Your task to perform on an android device: move a message to another label in the gmail app Image 0: 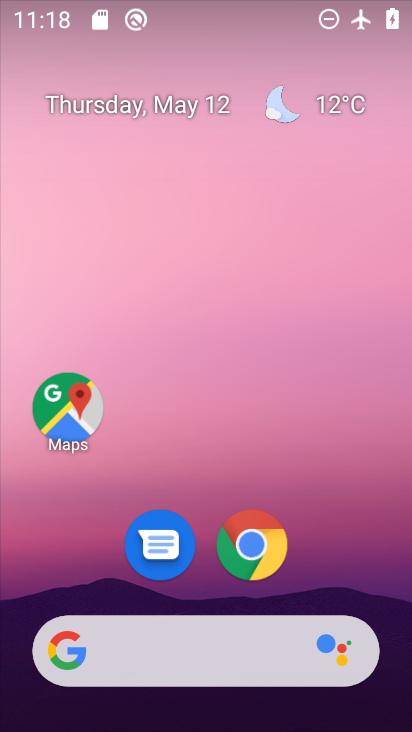
Step 0: press home button
Your task to perform on an android device: move a message to another label in the gmail app Image 1: 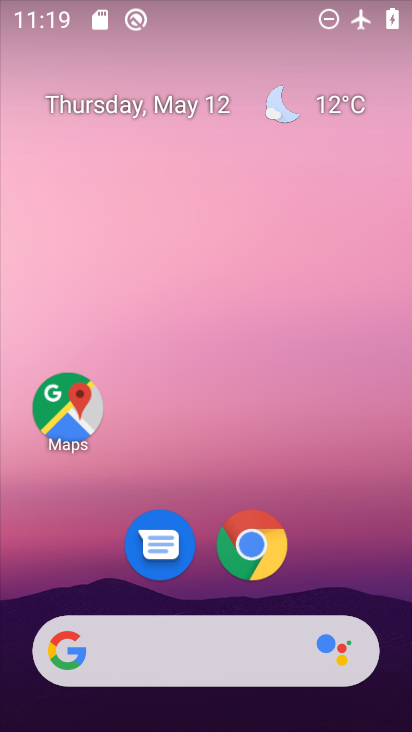
Step 1: drag from (210, 588) to (260, 45)
Your task to perform on an android device: move a message to another label in the gmail app Image 2: 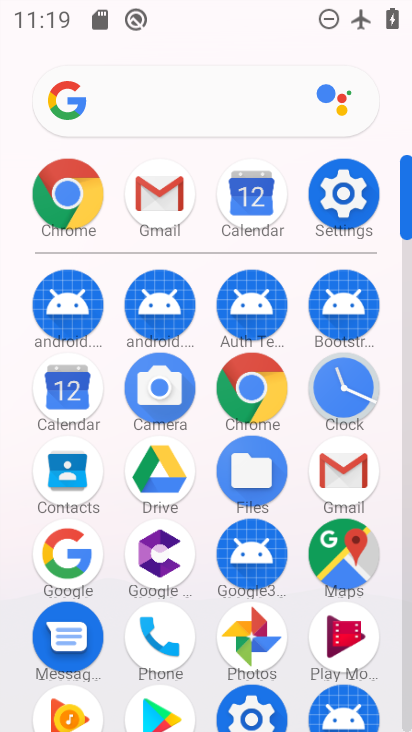
Step 2: click (158, 181)
Your task to perform on an android device: move a message to another label in the gmail app Image 3: 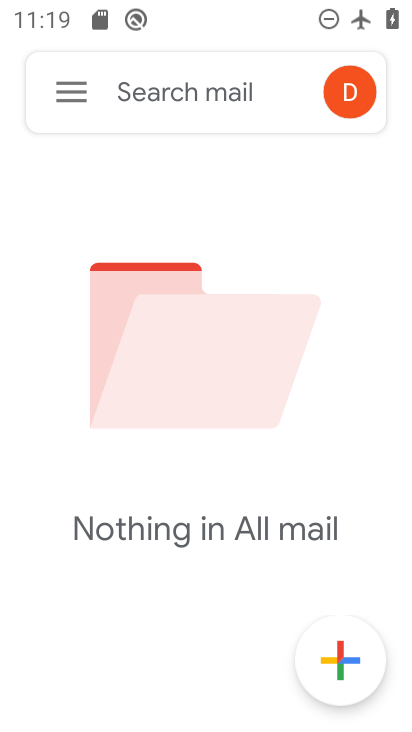
Step 3: click (67, 83)
Your task to perform on an android device: move a message to another label in the gmail app Image 4: 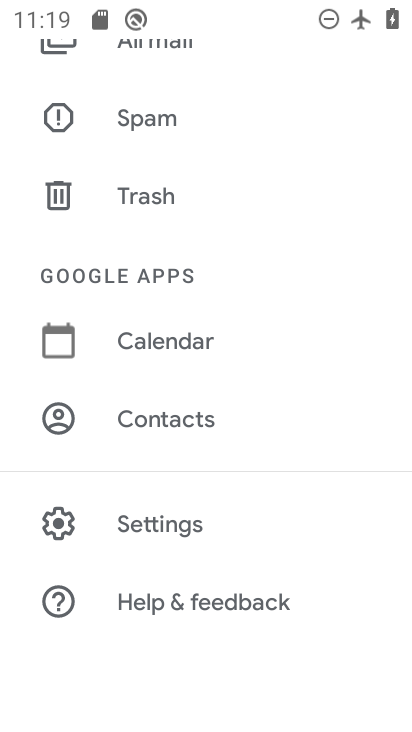
Step 4: click (159, 46)
Your task to perform on an android device: move a message to another label in the gmail app Image 5: 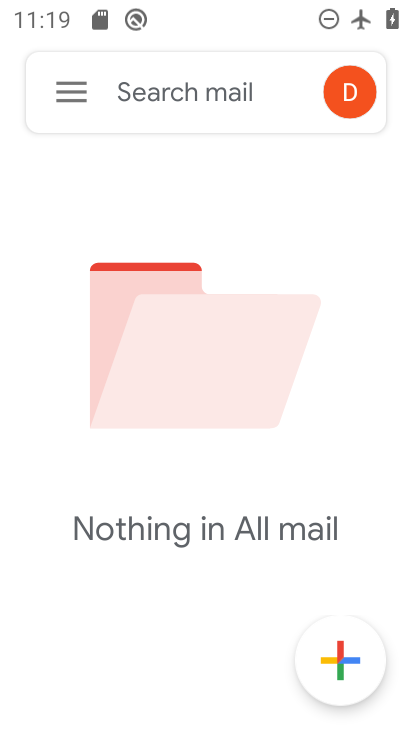
Step 5: task complete